Your task to perform on an android device: Clear all items from cart on costco.com. Search for "macbook pro 15 inch" on costco.com, select the first entry, and add it to the cart. Image 0: 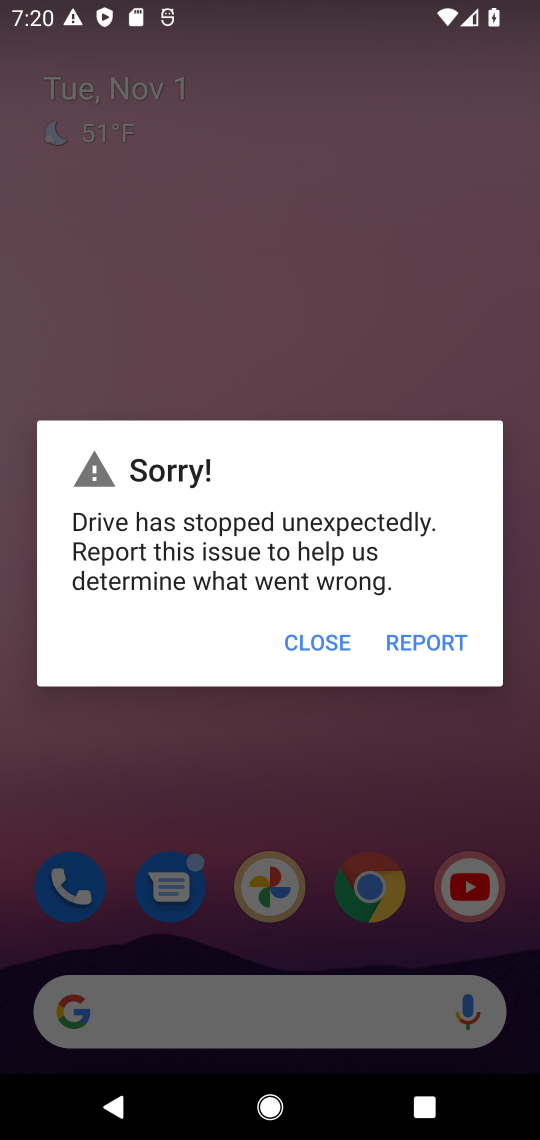
Step 0: click (286, 634)
Your task to perform on an android device: Clear all items from cart on costco.com. Search for "macbook pro 15 inch" on costco.com, select the first entry, and add it to the cart. Image 1: 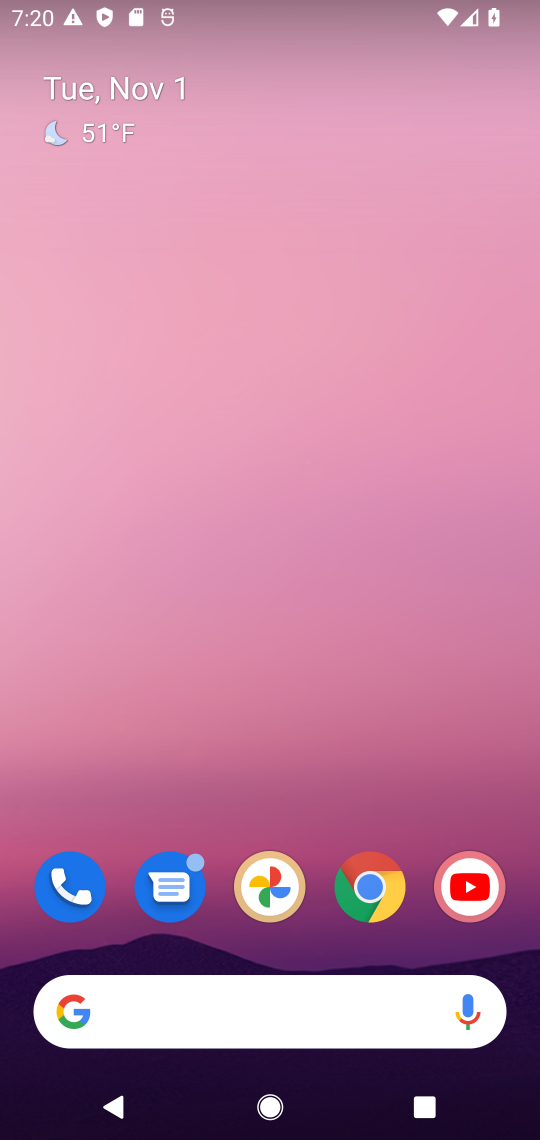
Step 1: drag from (217, 948) to (244, 275)
Your task to perform on an android device: Clear all items from cart on costco.com. Search for "macbook pro 15 inch" on costco.com, select the first entry, and add it to the cart. Image 2: 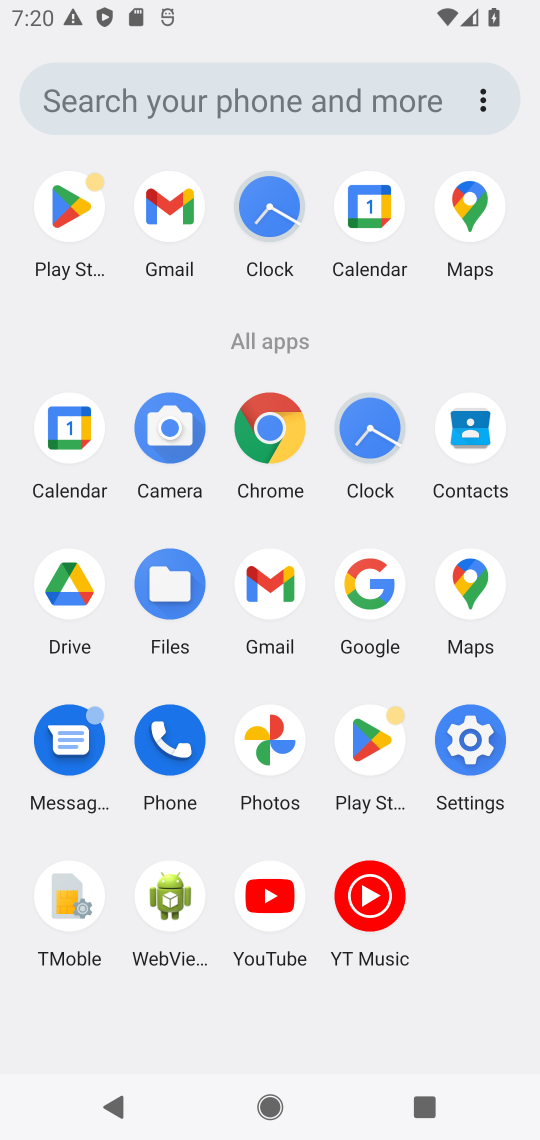
Step 2: click (369, 571)
Your task to perform on an android device: Clear all items from cart on costco.com. Search for "macbook pro 15 inch" on costco.com, select the first entry, and add it to the cart. Image 3: 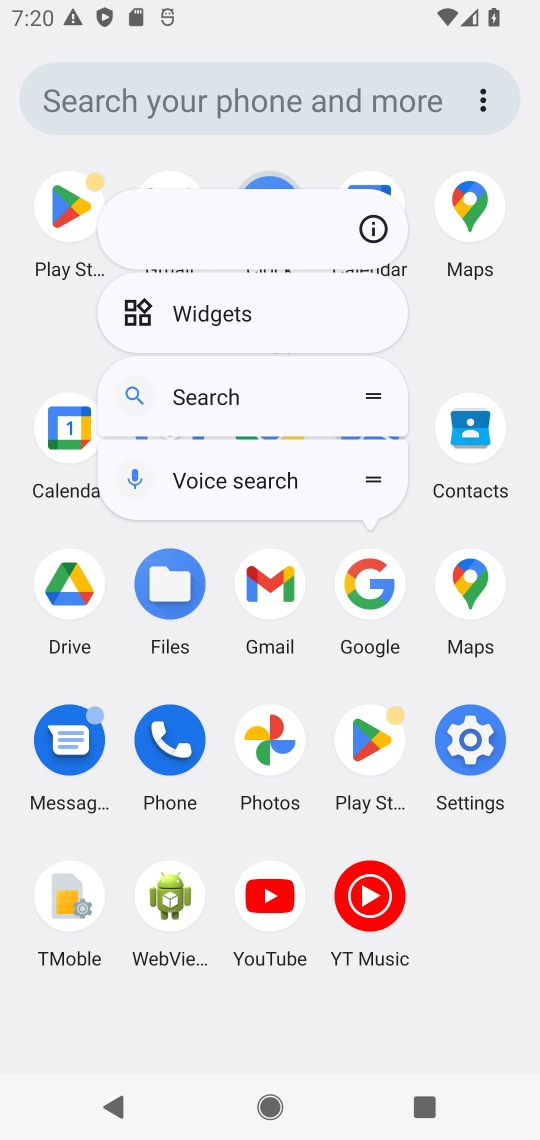
Step 3: click (369, 571)
Your task to perform on an android device: Clear all items from cart on costco.com. Search for "macbook pro 15 inch" on costco.com, select the first entry, and add it to the cart. Image 4: 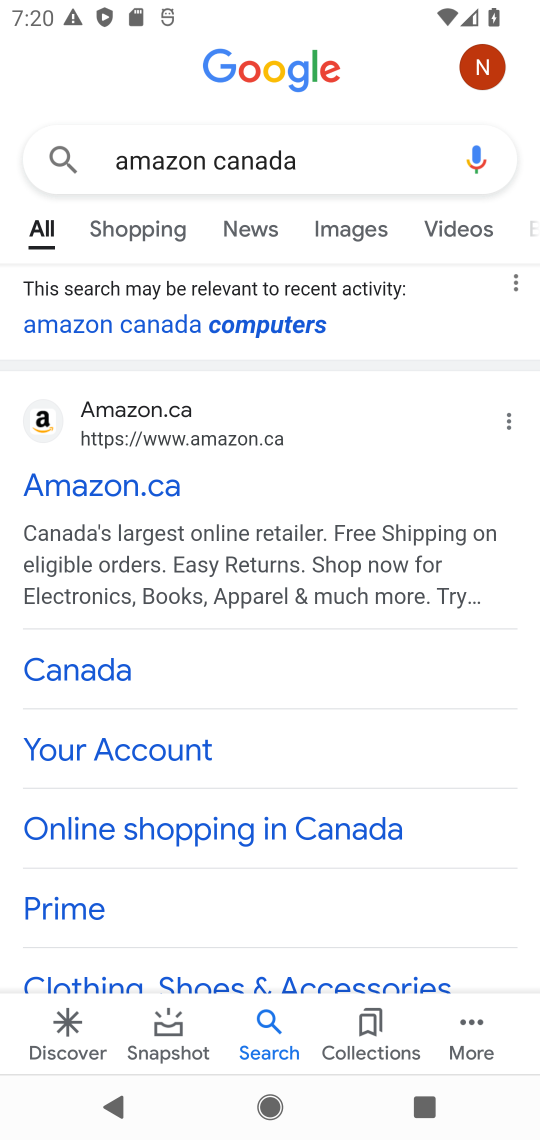
Step 4: click (309, 132)
Your task to perform on an android device: Clear all items from cart on costco.com. Search for "macbook pro 15 inch" on costco.com, select the first entry, and add it to the cart. Image 5: 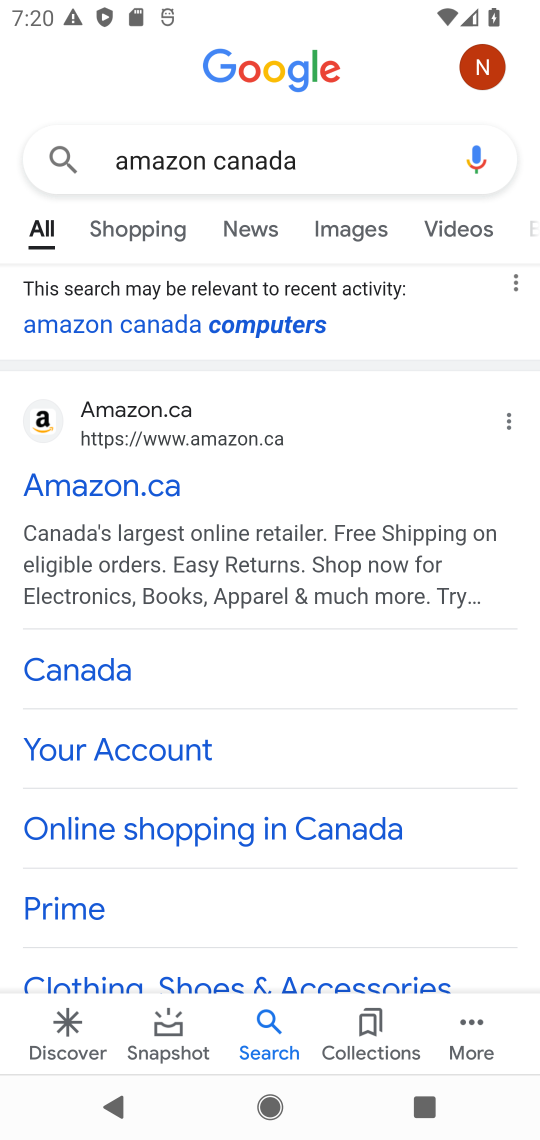
Step 5: click (306, 136)
Your task to perform on an android device: Clear all items from cart on costco.com. Search for "macbook pro 15 inch" on costco.com, select the first entry, and add it to the cart. Image 6: 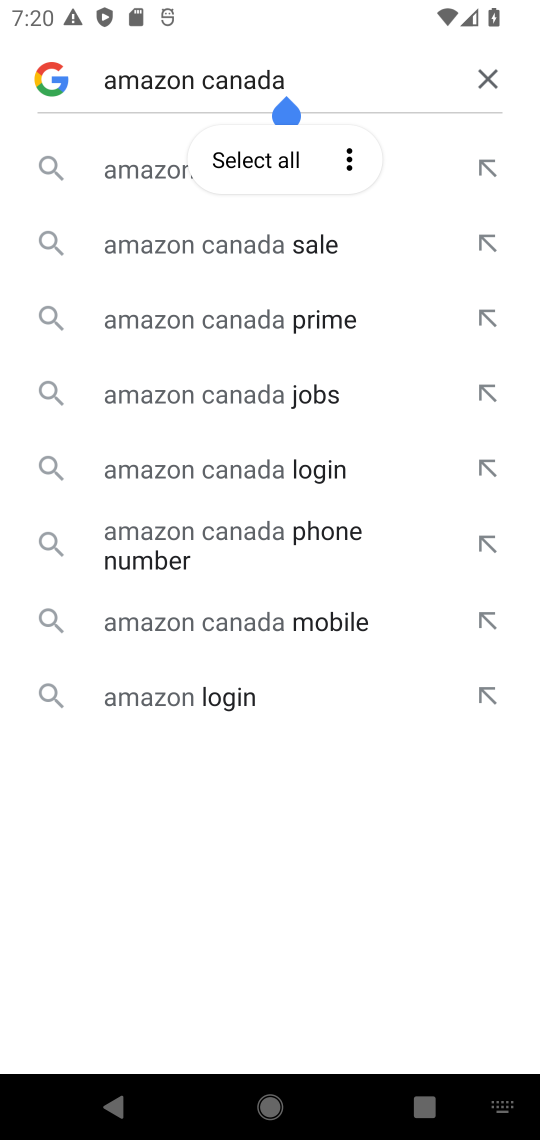
Step 6: click (492, 67)
Your task to perform on an android device: Clear all items from cart on costco.com. Search for "macbook pro 15 inch" on costco.com, select the first entry, and add it to the cart. Image 7: 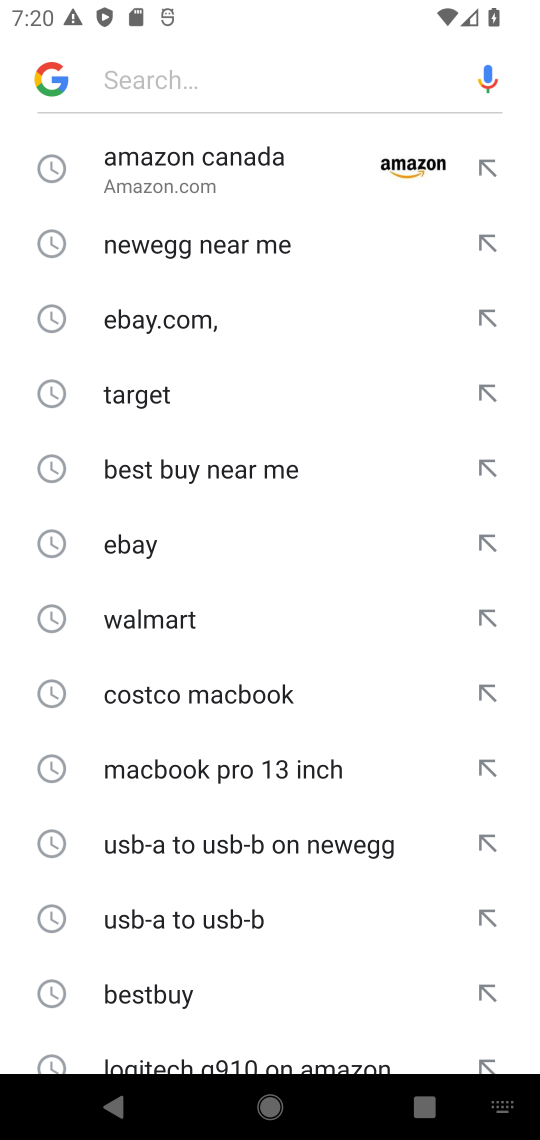
Step 7: click (175, 61)
Your task to perform on an android device: Clear all items from cart on costco.com. Search for "macbook pro 15 inch" on costco.com, select the first entry, and add it to the cart. Image 8: 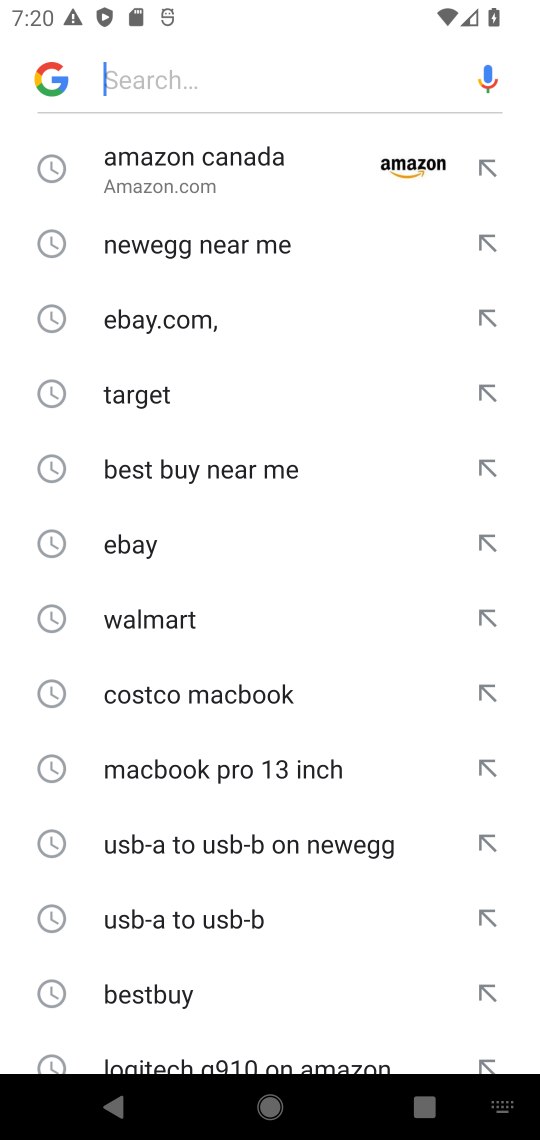
Step 8: type "costco "
Your task to perform on an android device: Clear all items from cart on costco.com. Search for "macbook pro 15 inch" on costco.com, select the first entry, and add it to the cart. Image 9: 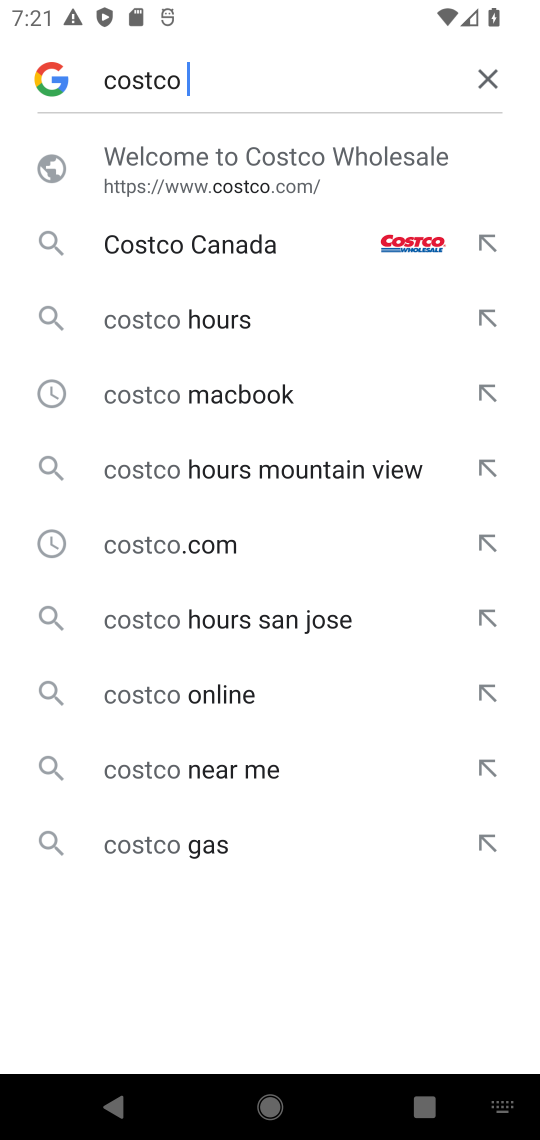
Step 9: click (106, 534)
Your task to perform on an android device: Clear all items from cart on costco.com. Search for "macbook pro 15 inch" on costco.com, select the first entry, and add it to the cart. Image 10: 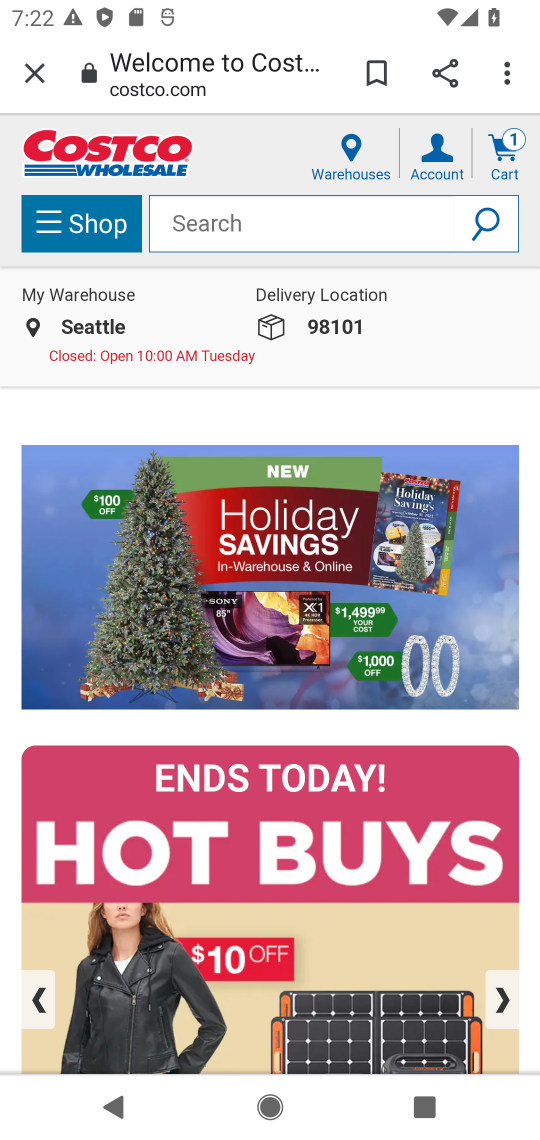
Step 10: click (280, 219)
Your task to perform on an android device: Clear all items from cart on costco.com. Search for "macbook pro 15 inch" on costco.com, select the first entry, and add it to the cart. Image 11: 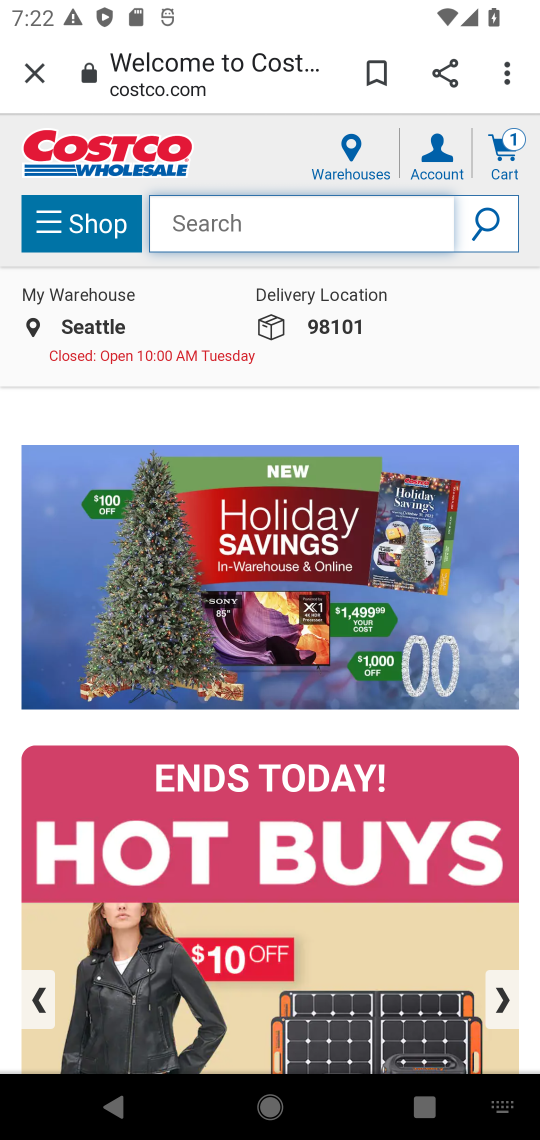
Step 11: type "macbook pro 15 inch "
Your task to perform on an android device: Clear all items from cart on costco.com. Search for "macbook pro 15 inch" on costco.com, select the first entry, and add it to the cart. Image 12: 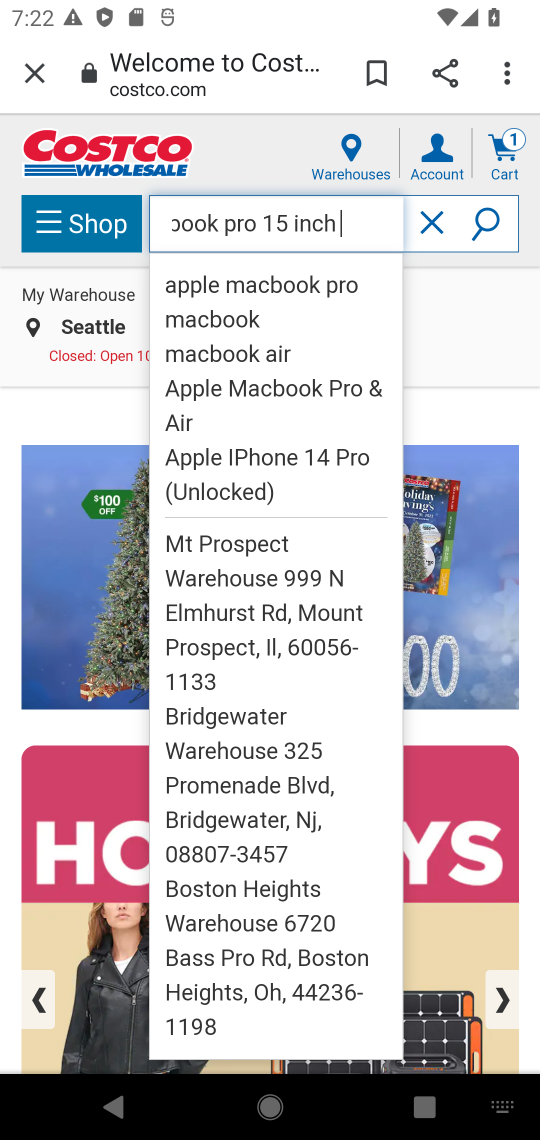
Step 12: click (251, 300)
Your task to perform on an android device: Clear all items from cart on costco.com. Search for "macbook pro 15 inch" on costco.com, select the first entry, and add it to the cart. Image 13: 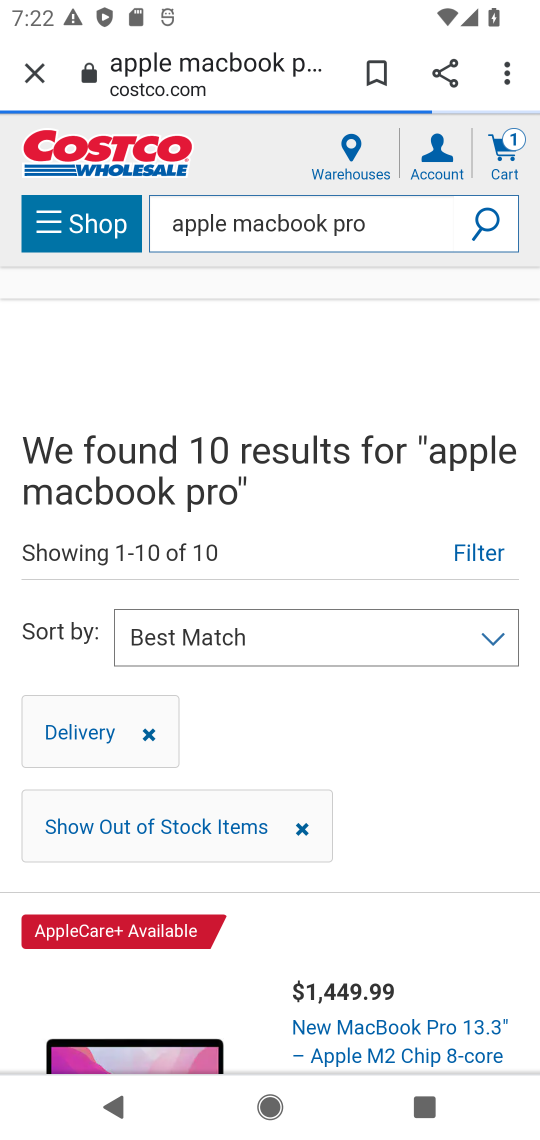
Step 13: drag from (358, 1007) to (349, 367)
Your task to perform on an android device: Clear all items from cart on costco.com. Search for "macbook pro 15 inch" on costco.com, select the first entry, and add it to the cart. Image 14: 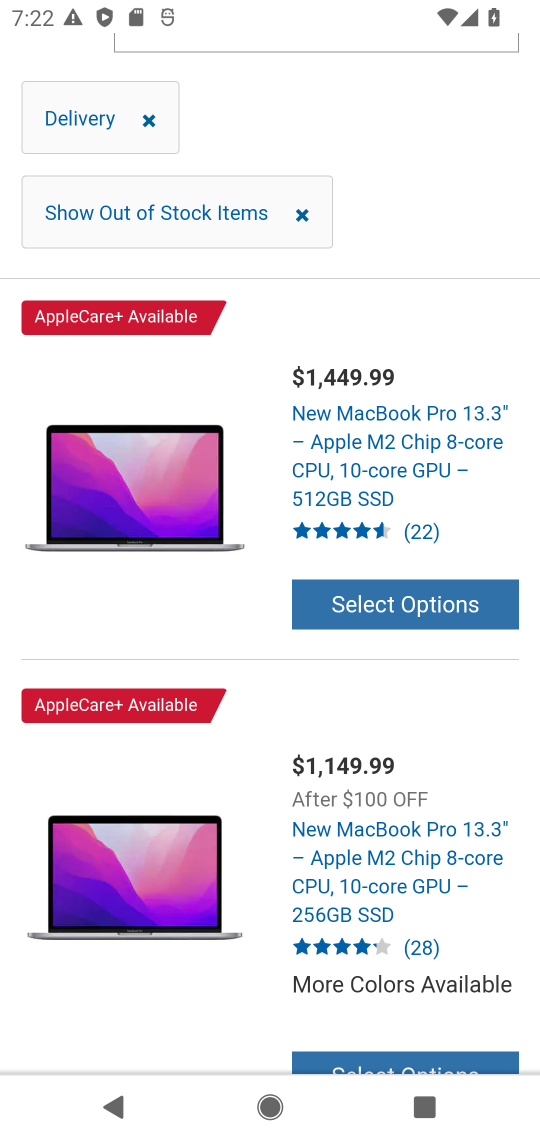
Step 14: click (411, 591)
Your task to perform on an android device: Clear all items from cart on costco.com. Search for "macbook pro 15 inch" on costco.com, select the first entry, and add it to the cart. Image 15: 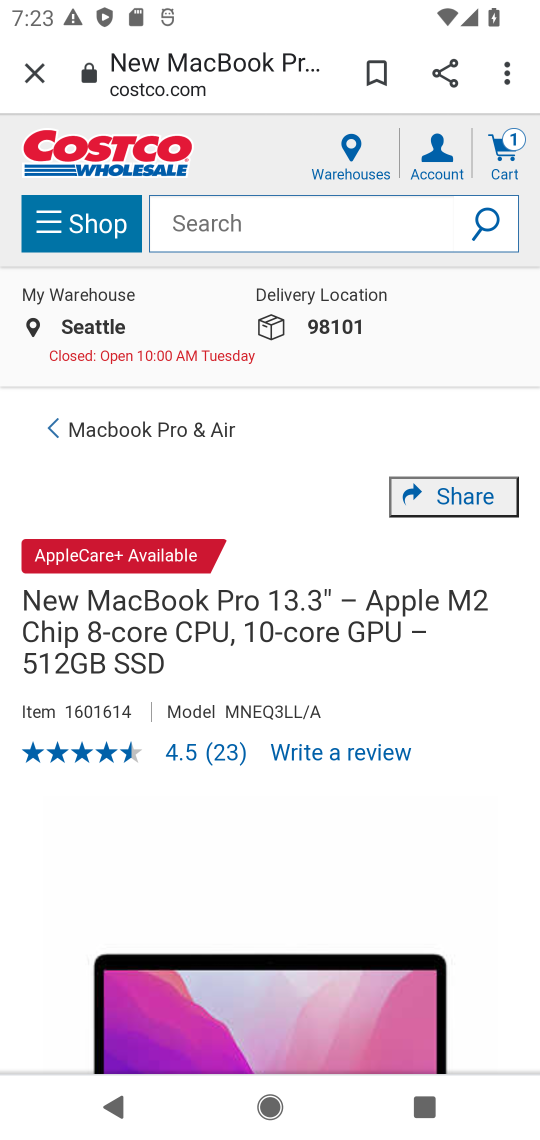
Step 15: task complete